Your task to perform on an android device: open wifi settings Image 0: 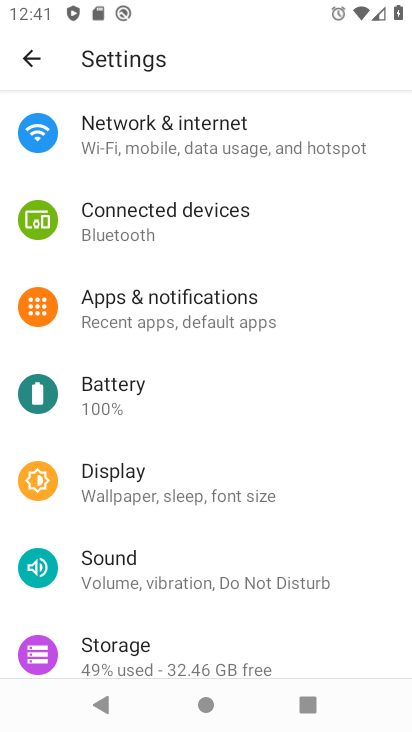
Step 0: click (221, 122)
Your task to perform on an android device: open wifi settings Image 1: 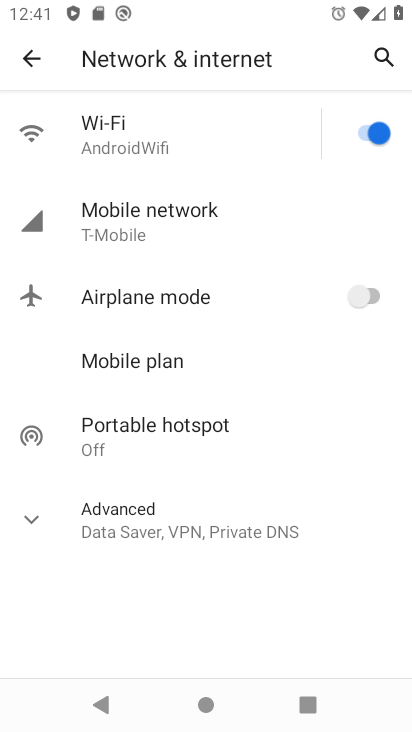
Step 1: click (200, 126)
Your task to perform on an android device: open wifi settings Image 2: 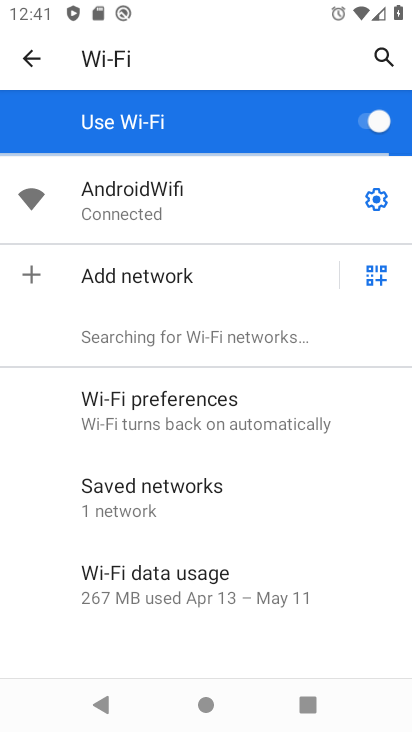
Step 2: task complete